Your task to perform on an android device: Go to Android settings Image 0: 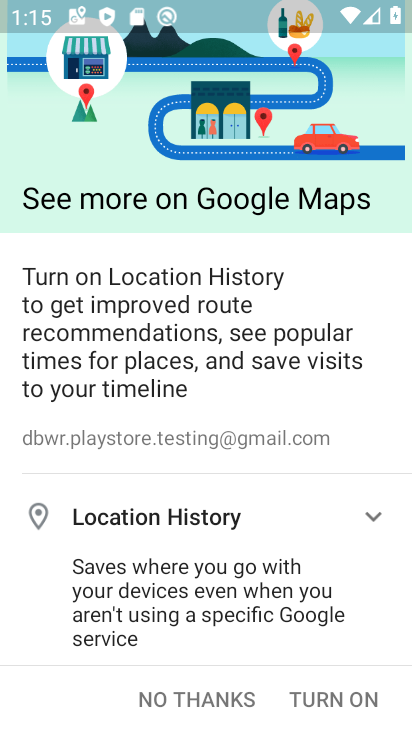
Step 0: press home button
Your task to perform on an android device: Go to Android settings Image 1: 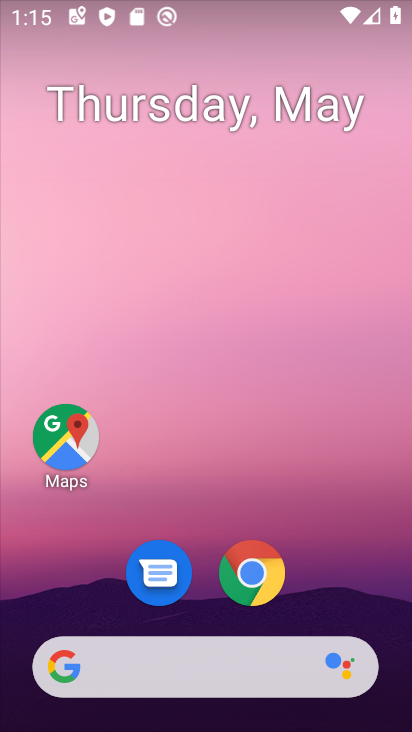
Step 1: drag from (199, 662) to (242, 64)
Your task to perform on an android device: Go to Android settings Image 2: 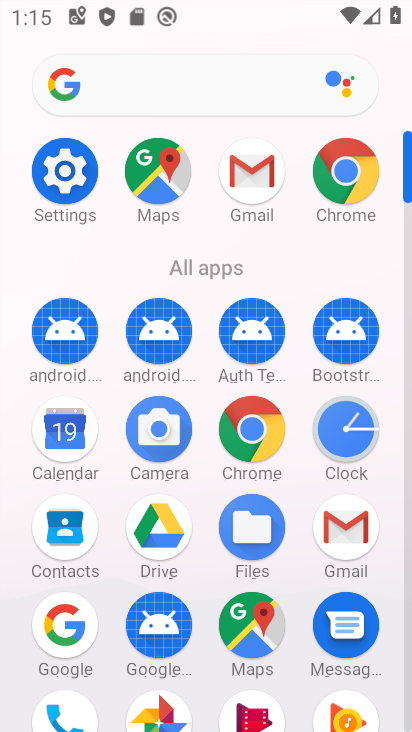
Step 2: click (55, 170)
Your task to perform on an android device: Go to Android settings Image 3: 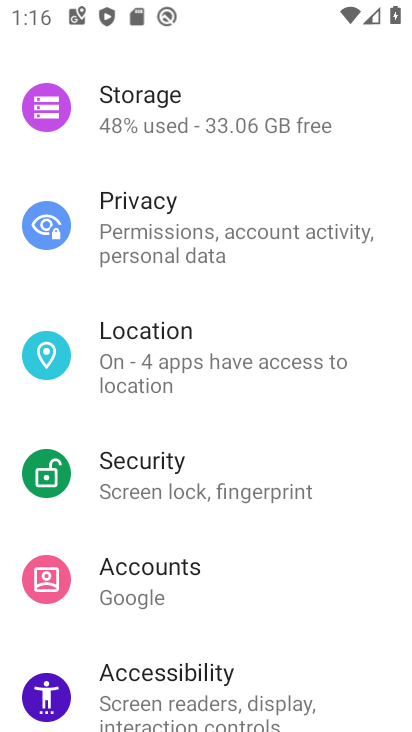
Step 3: task complete